Your task to perform on an android device: check battery use Image 0: 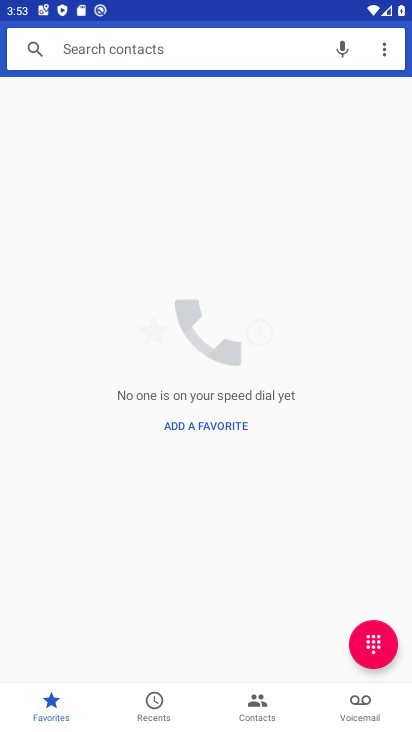
Step 0: press back button
Your task to perform on an android device: check battery use Image 1: 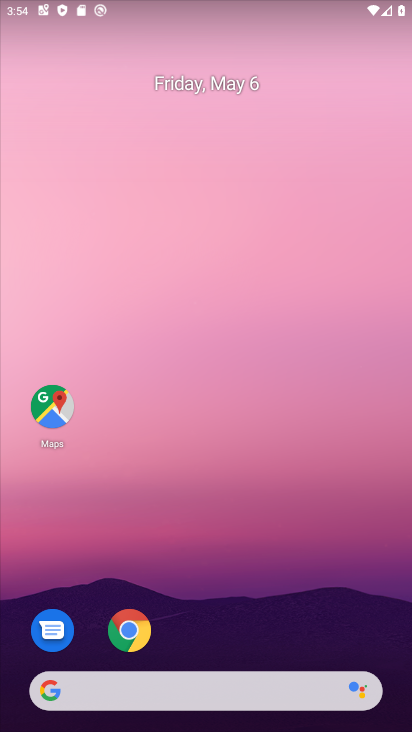
Step 1: drag from (205, 580) to (273, 143)
Your task to perform on an android device: check battery use Image 2: 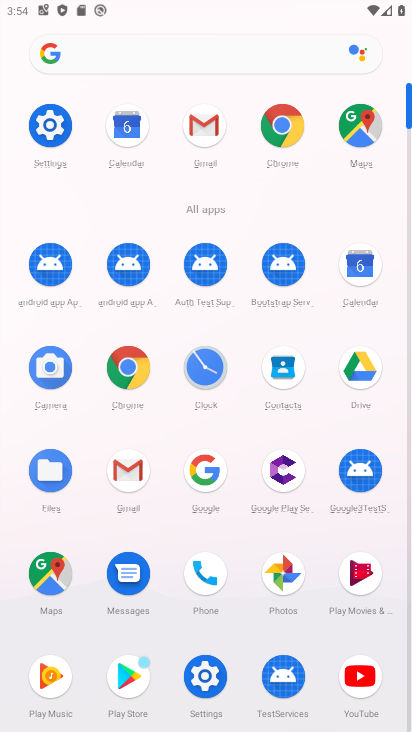
Step 2: click (42, 120)
Your task to perform on an android device: check battery use Image 3: 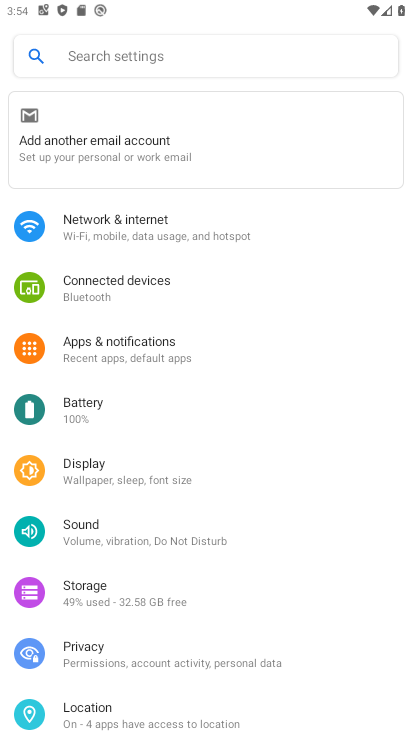
Step 3: click (93, 409)
Your task to perform on an android device: check battery use Image 4: 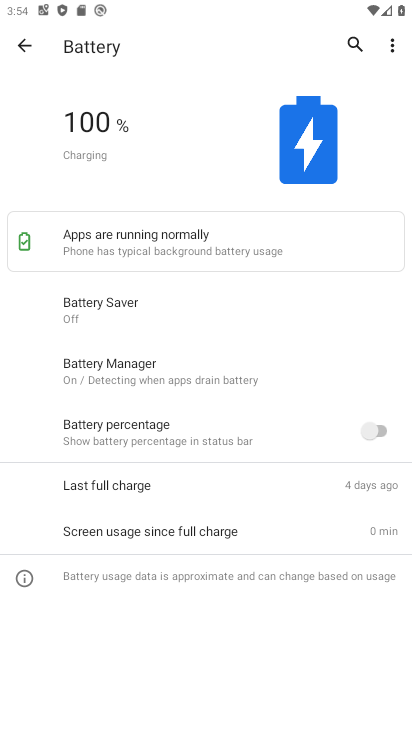
Step 4: click (393, 47)
Your task to perform on an android device: check battery use Image 5: 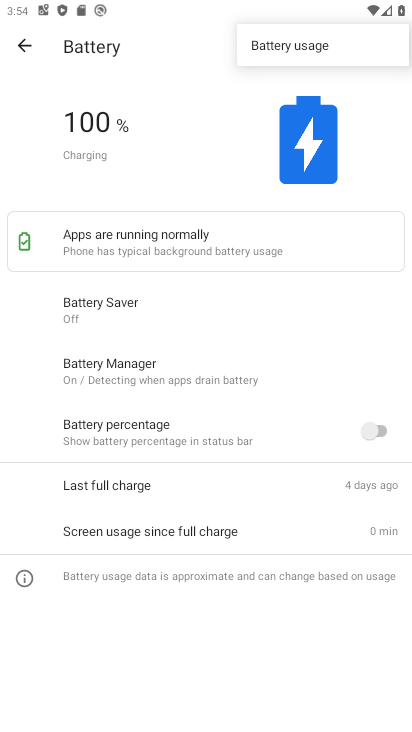
Step 5: click (323, 44)
Your task to perform on an android device: check battery use Image 6: 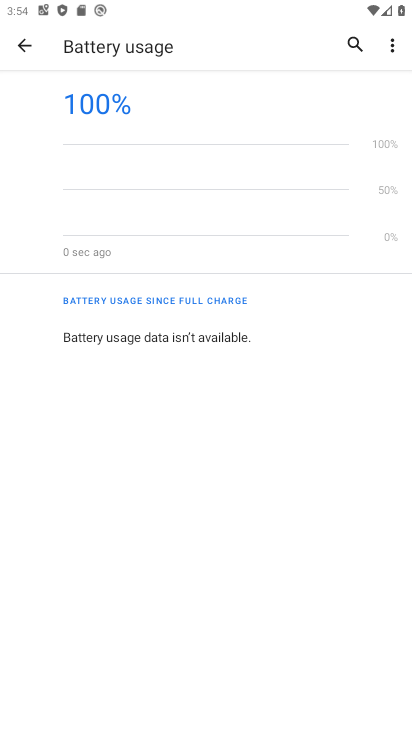
Step 6: task complete